Your task to perform on an android device: turn off airplane mode Image 0: 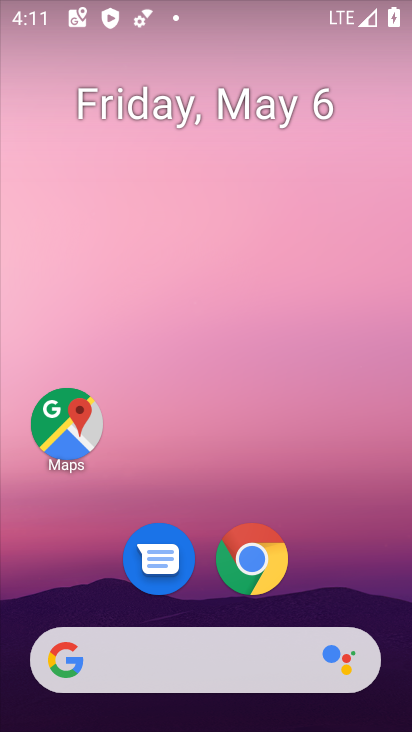
Step 0: drag from (211, 596) to (228, 216)
Your task to perform on an android device: turn off airplane mode Image 1: 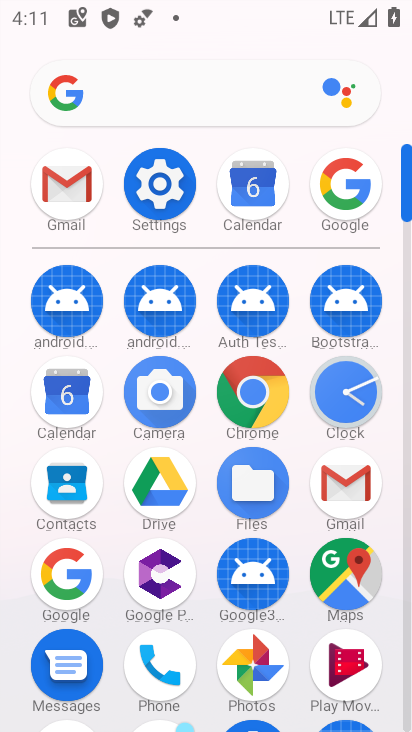
Step 1: click (159, 187)
Your task to perform on an android device: turn off airplane mode Image 2: 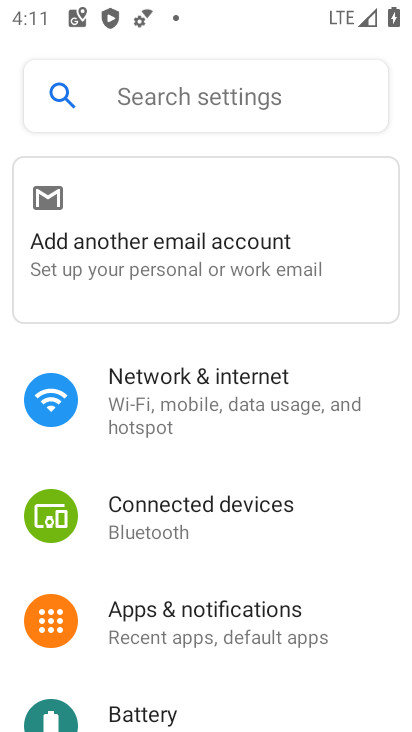
Step 2: click (166, 409)
Your task to perform on an android device: turn off airplane mode Image 3: 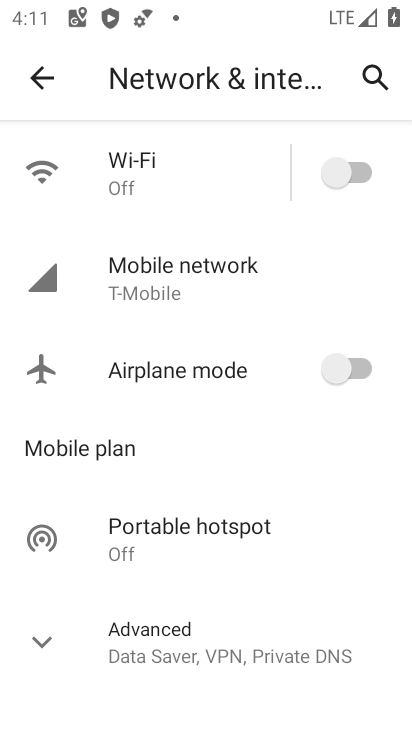
Step 3: click (148, 369)
Your task to perform on an android device: turn off airplane mode Image 4: 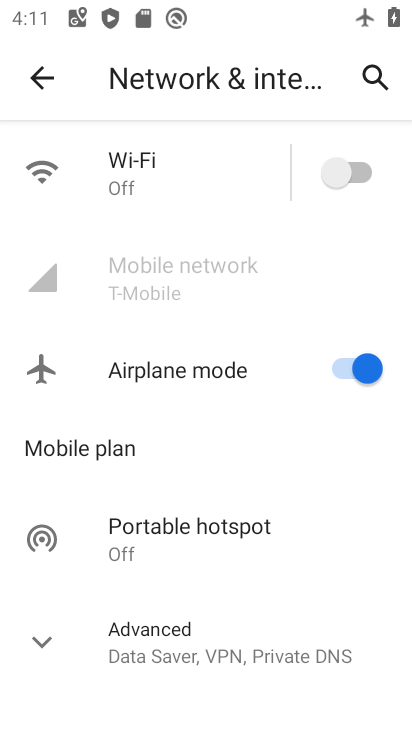
Step 4: click (344, 367)
Your task to perform on an android device: turn off airplane mode Image 5: 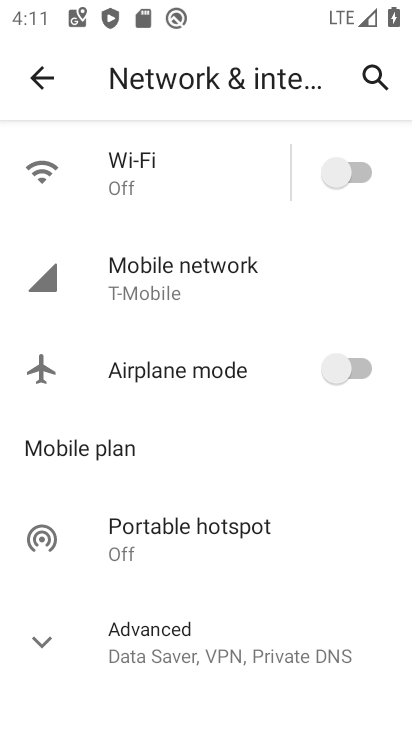
Step 5: task complete